Your task to perform on an android device: Empty the shopping cart on costco. Image 0: 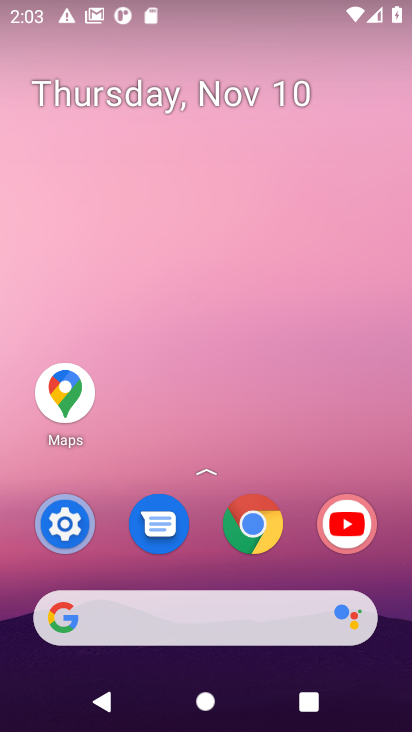
Step 0: click (248, 523)
Your task to perform on an android device: Empty the shopping cart on costco. Image 1: 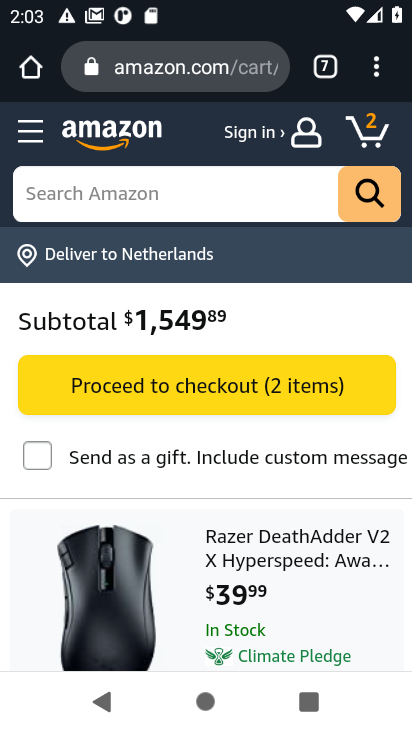
Step 1: click (330, 73)
Your task to perform on an android device: Empty the shopping cart on costco. Image 2: 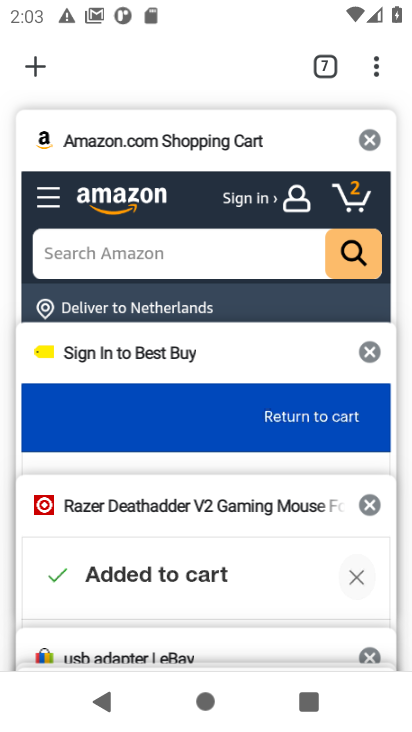
Step 2: drag from (110, 620) to (184, 365)
Your task to perform on an android device: Empty the shopping cart on costco. Image 3: 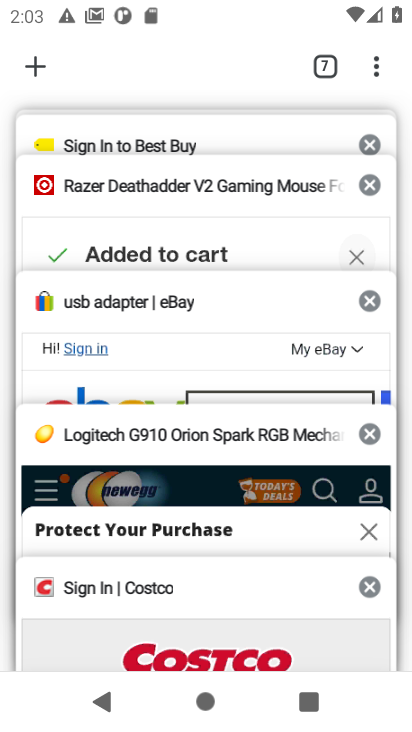
Step 3: click (124, 608)
Your task to perform on an android device: Empty the shopping cart on costco. Image 4: 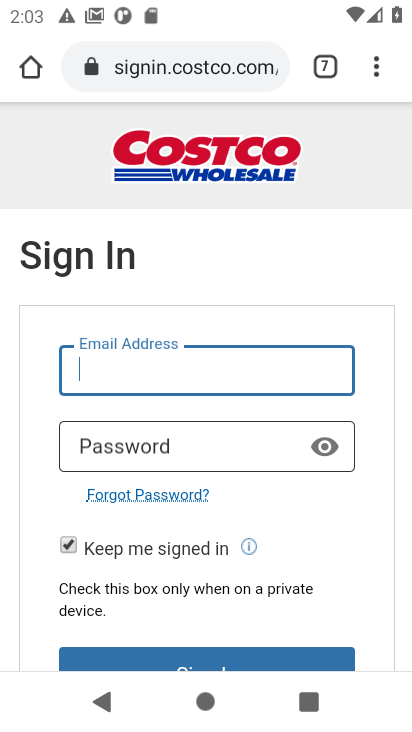
Step 4: press back button
Your task to perform on an android device: Empty the shopping cart on costco. Image 5: 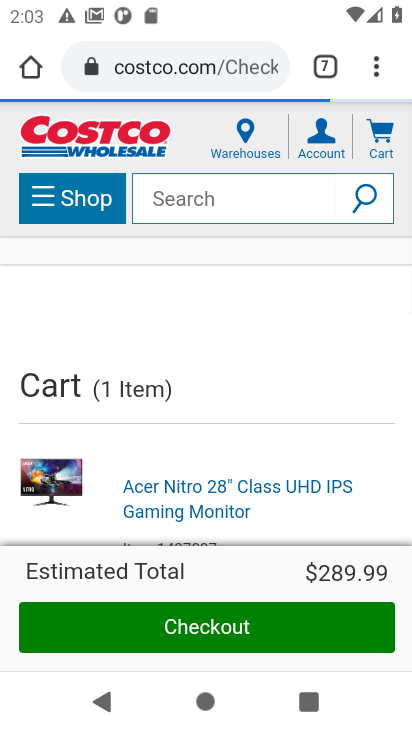
Step 5: press back button
Your task to perform on an android device: Empty the shopping cart on costco. Image 6: 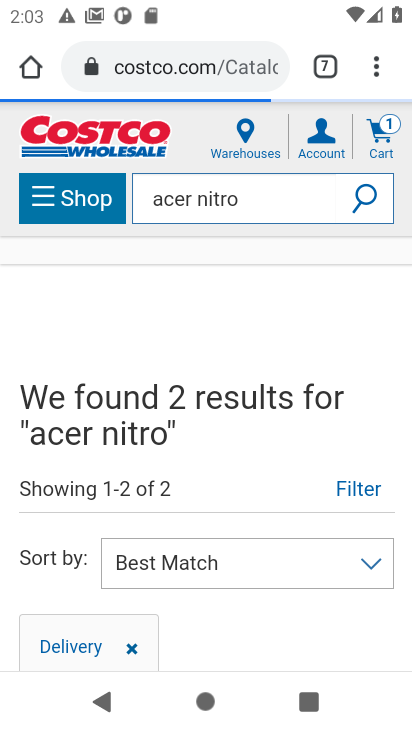
Step 6: click (379, 131)
Your task to perform on an android device: Empty the shopping cart on costco. Image 7: 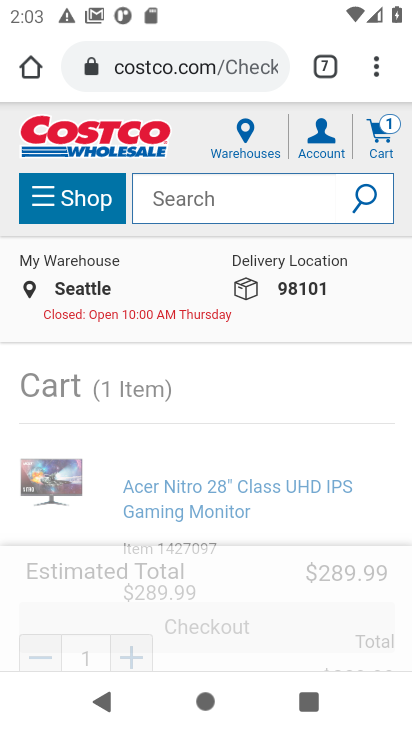
Step 7: drag from (262, 450) to (314, 221)
Your task to perform on an android device: Empty the shopping cart on costco. Image 8: 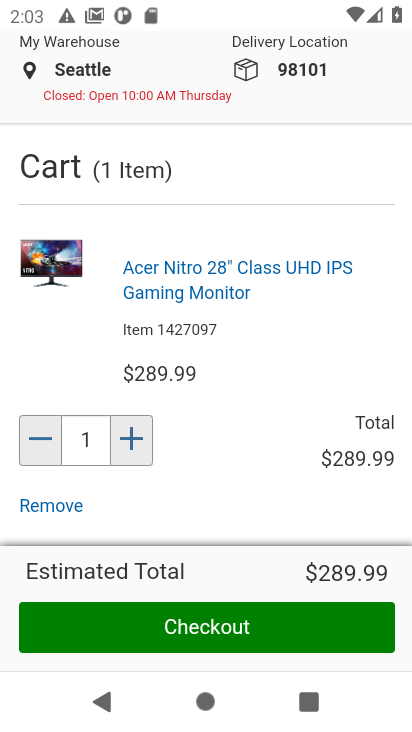
Step 8: click (59, 509)
Your task to perform on an android device: Empty the shopping cart on costco. Image 9: 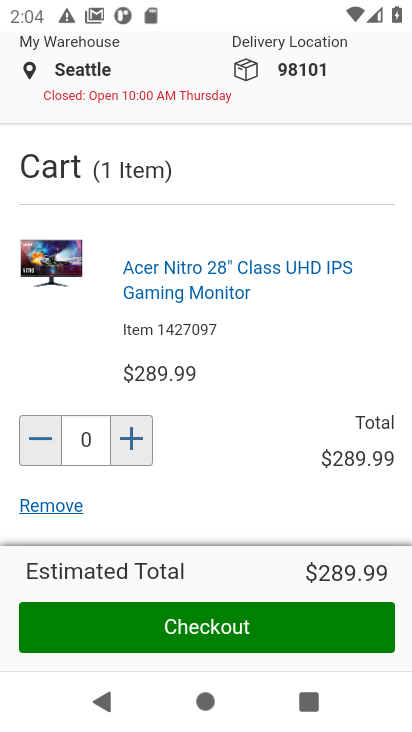
Step 9: drag from (149, 509) to (197, 123)
Your task to perform on an android device: Empty the shopping cart on costco. Image 10: 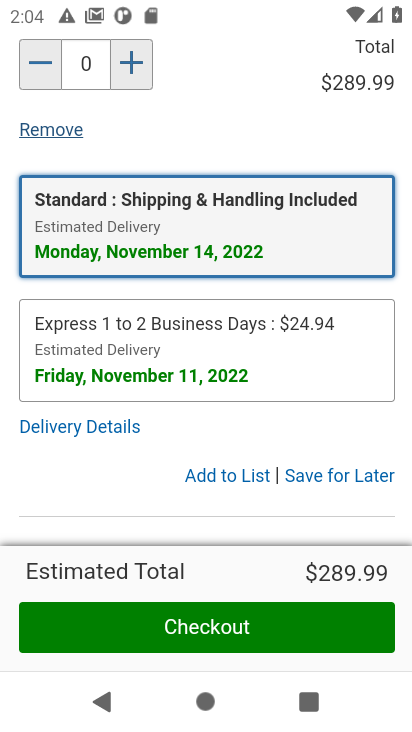
Step 10: click (323, 471)
Your task to perform on an android device: Empty the shopping cart on costco. Image 11: 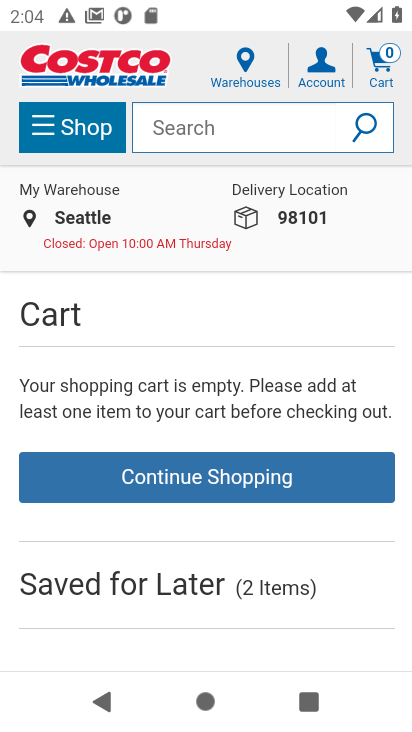
Step 11: task complete